Your task to perform on an android device: open app "LiveIn - Share Your Moment" (install if not already installed) and go to login screen Image 0: 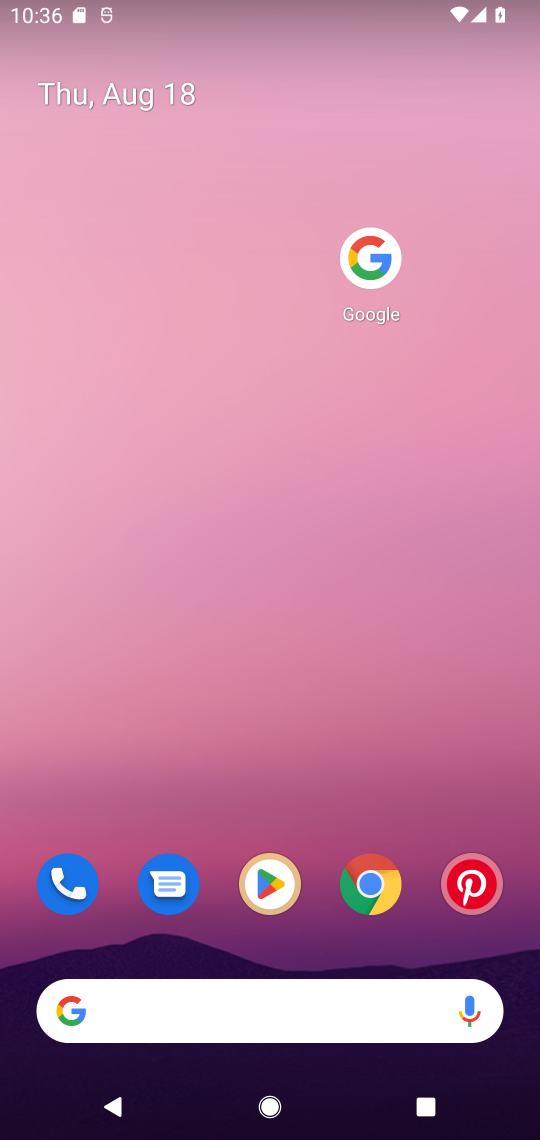
Step 0: click (267, 901)
Your task to perform on an android device: open app "LiveIn - Share Your Moment" (install if not already installed) and go to login screen Image 1: 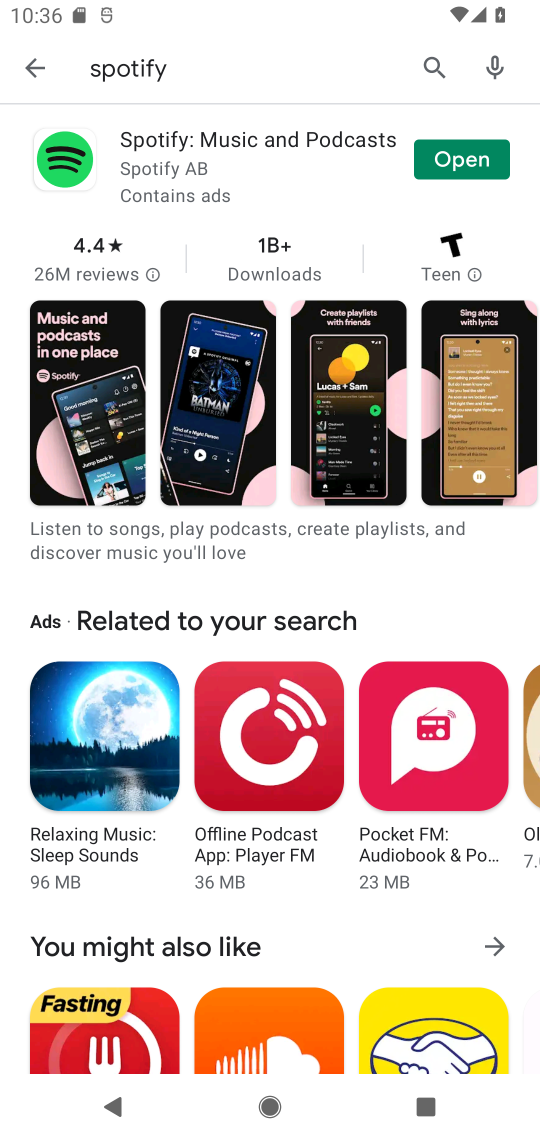
Step 1: click (413, 90)
Your task to perform on an android device: open app "LiveIn - Share Your Moment" (install if not already installed) and go to login screen Image 2: 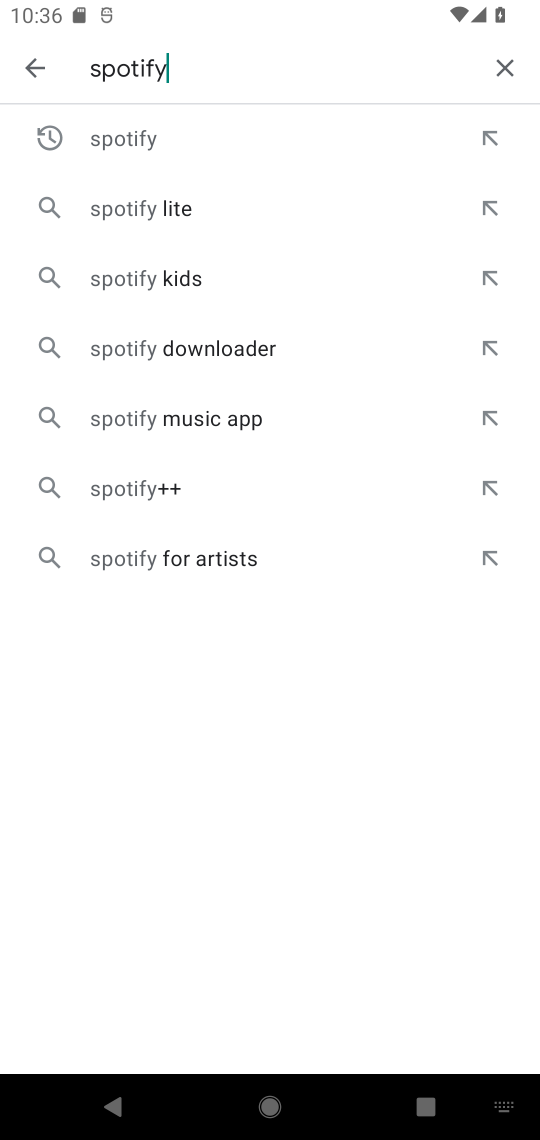
Step 2: click (511, 84)
Your task to perform on an android device: open app "LiveIn - Share Your Moment" (install if not already installed) and go to login screen Image 3: 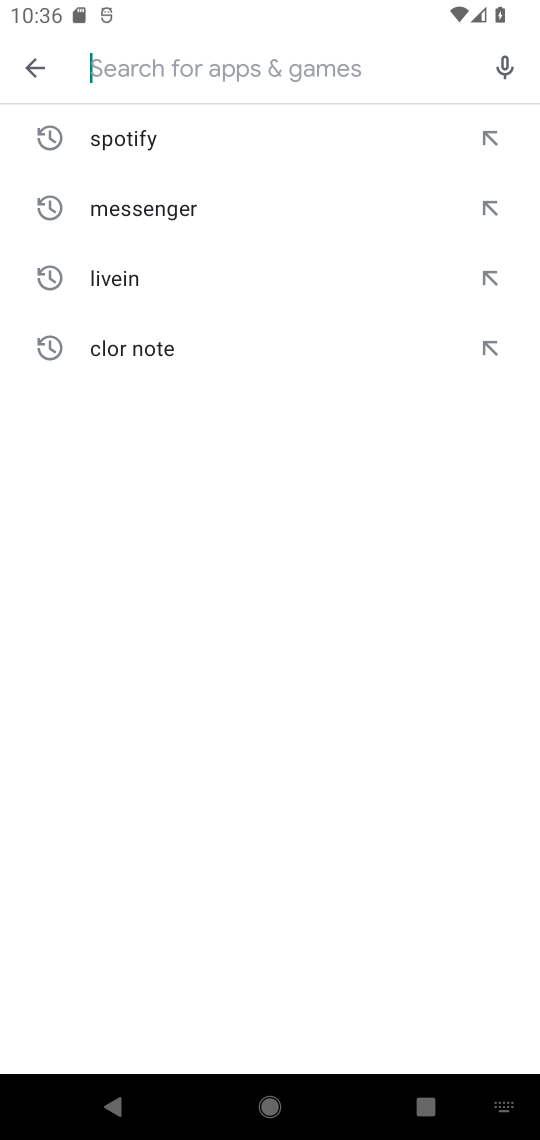
Step 3: type "livin"
Your task to perform on an android device: open app "LiveIn - Share Your Moment" (install if not already installed) and go to login screen Image 4: 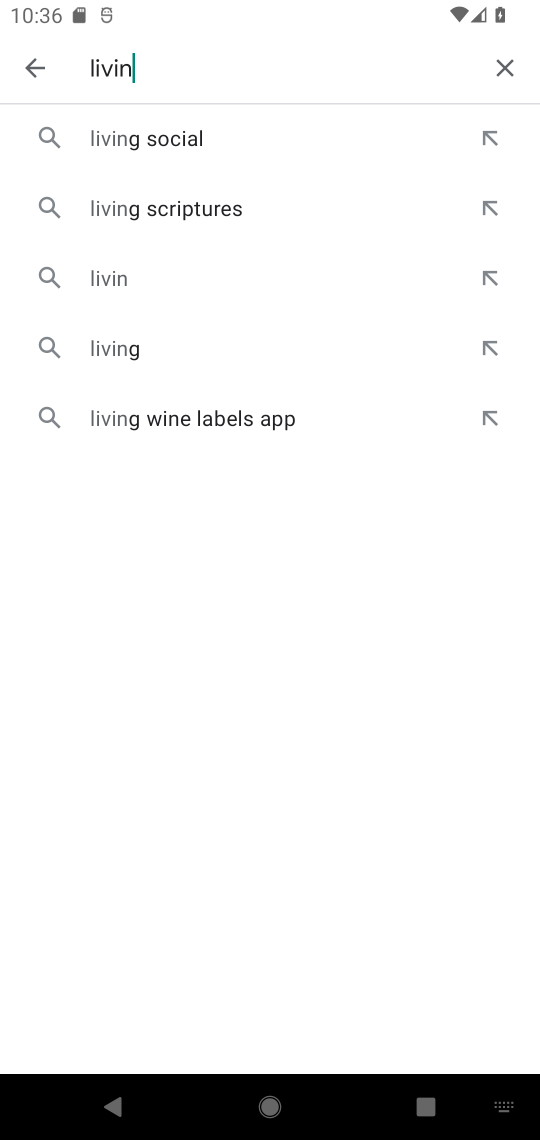
Step 4: click (263, 141)
Your task to perform on an android device: open app "LiveIn - Share Your Moment" (install if not already installed) and go to login screen Image 5: 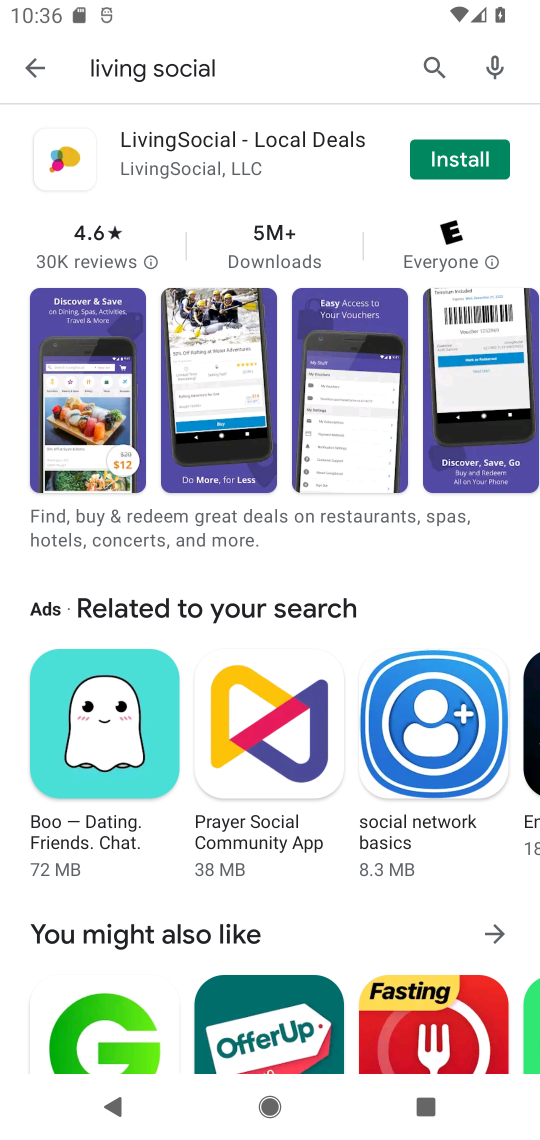
Step 5: click (445, 171)
Your task to perform on an android device: open app "LiveIn - Share Your Moment" (install if not already installed) and go to login screen Image 6: 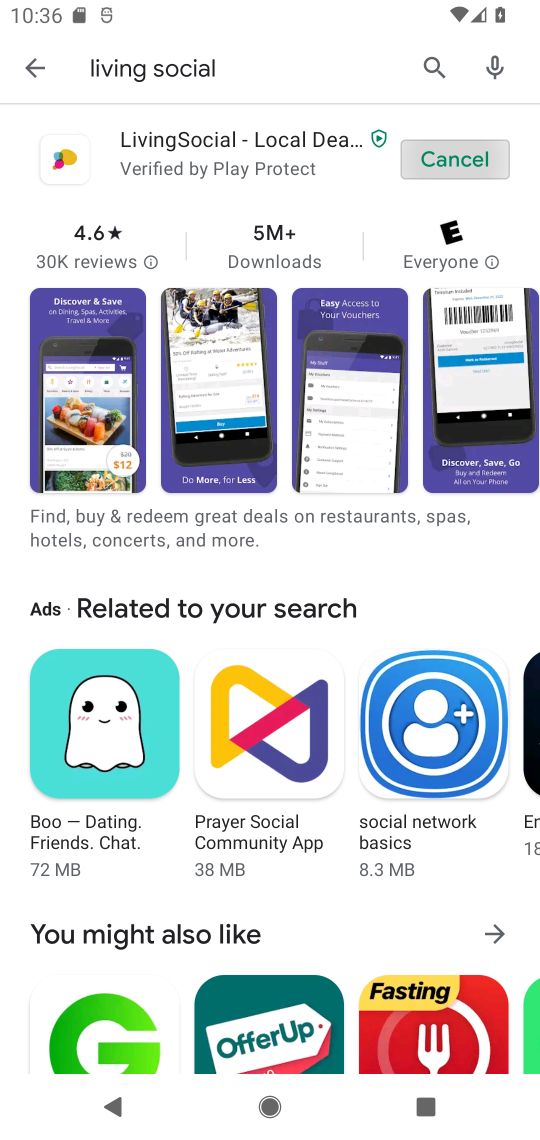
Step 6: task complete